Your task to perform on an android device: turn on improve location accuracy Image 0: 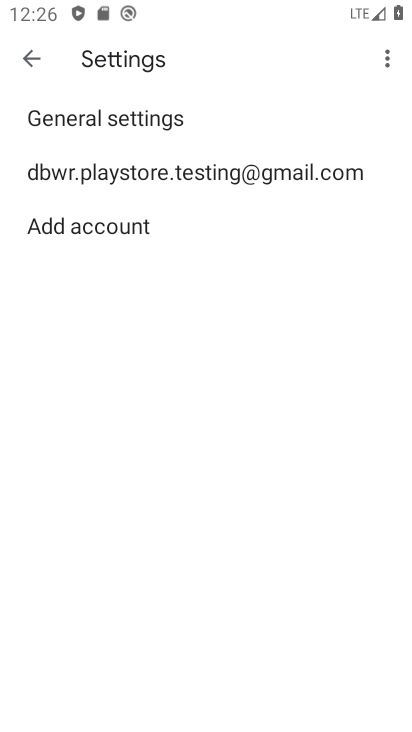
Step 0: press home button
Your task to perform on an android device: turn on improve location accuracy Image 1: 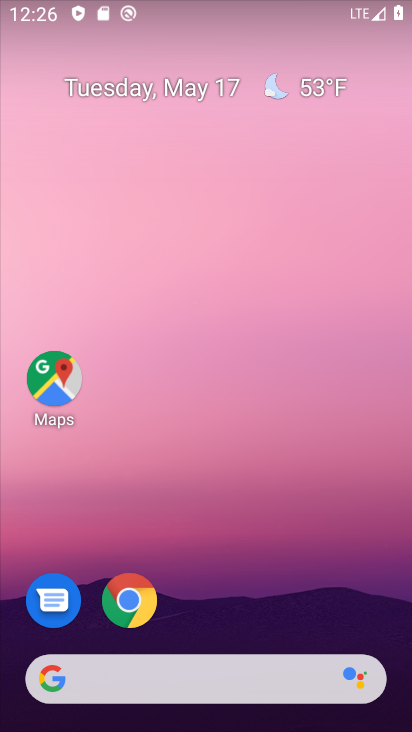
Step 1: click (180, 142)
Your task to perform on an android device: turn on improve location accuracy Image 2: 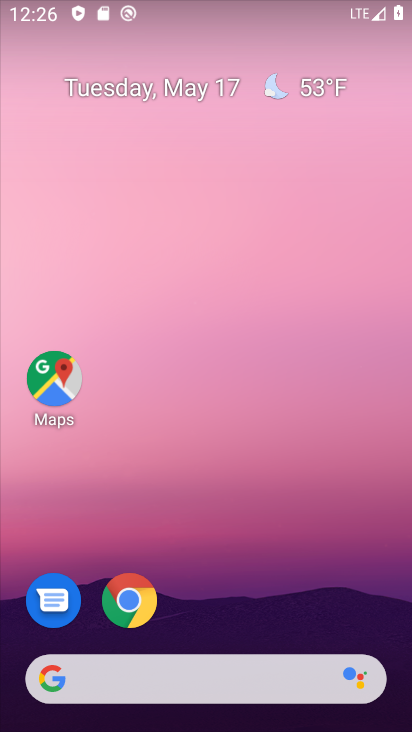
Step 2: drag from (203, 633) to (170, 112)
Your task to perform on an android device: turn on improve location accuracy Image 3: 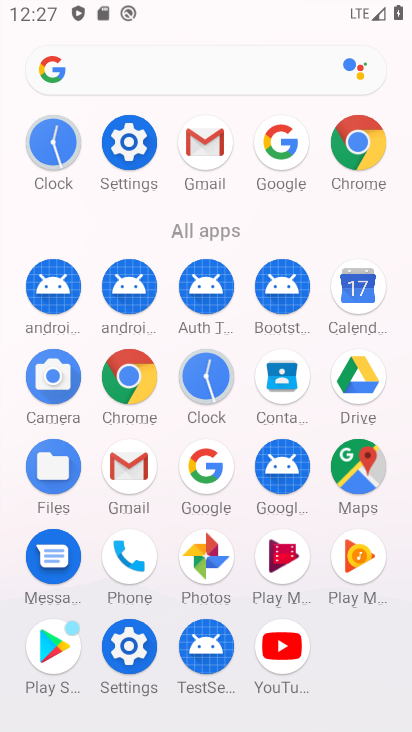
Step 3: click (123, 139)
Your task to perform on an android device: turn on improve location accuracy Image 4: 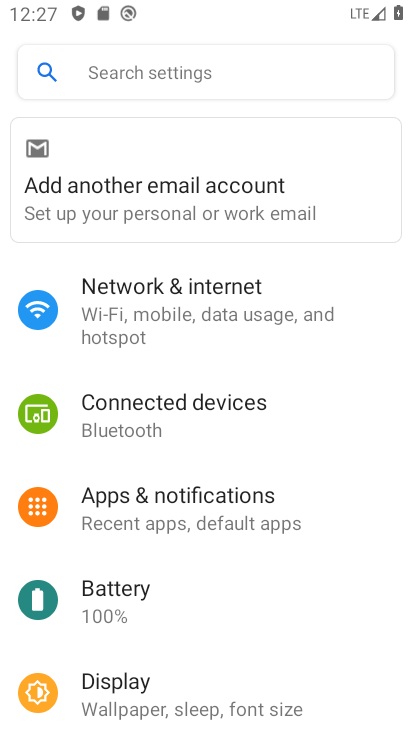
Step 4: click (172, 473)
Your task to perform on an android device: turn on improve location accuracy Image 5: 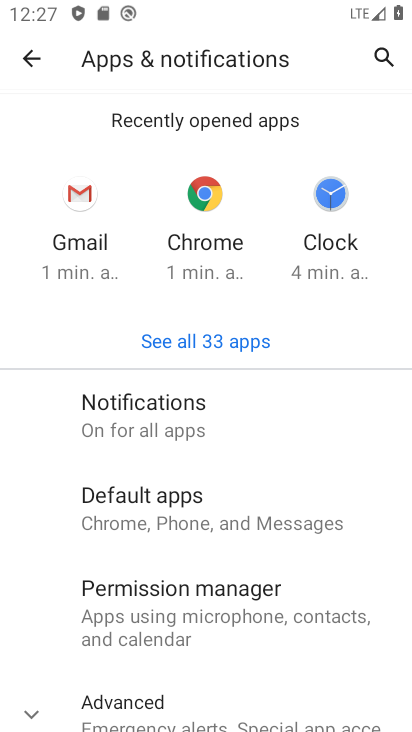
Step 5: press back button
Your task to perform on an android device: turn on improve location accuracy Image 6: 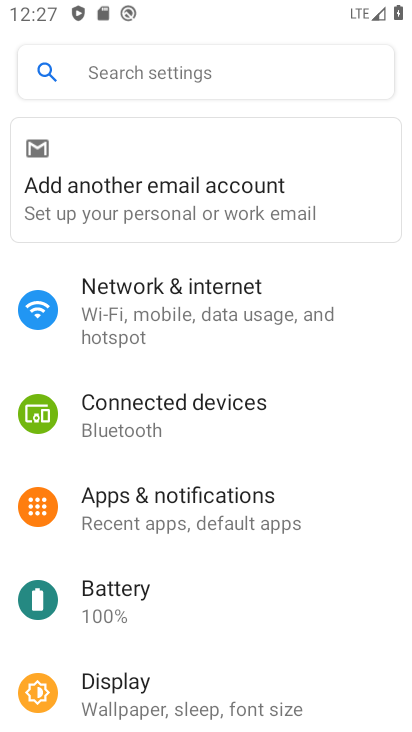
Step 6: drag from (247, 631) to (192, 185)
Your task to perform on an android device: turn on improve location accuracy Image 7: 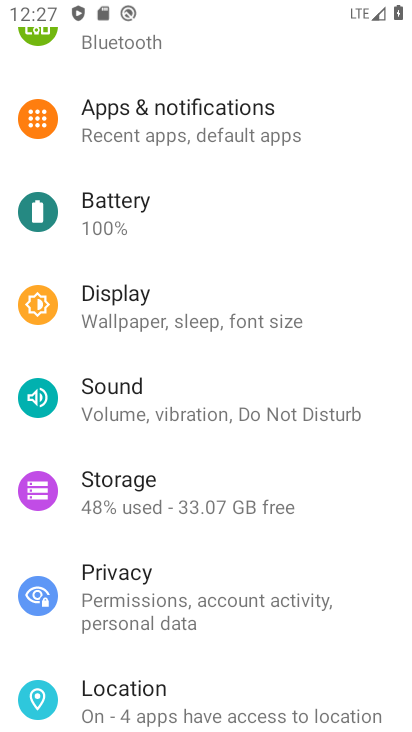
Step 7: click (138, 705)
Your task to perform on an android device: turn on improve location accuracy Image 8: 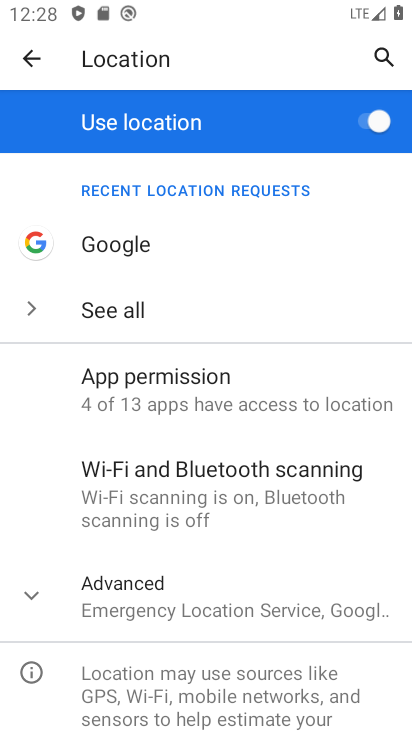
Step 8: click (135, 588)
Your task to perform on an android device: turn on improve location accuracy Image 9: 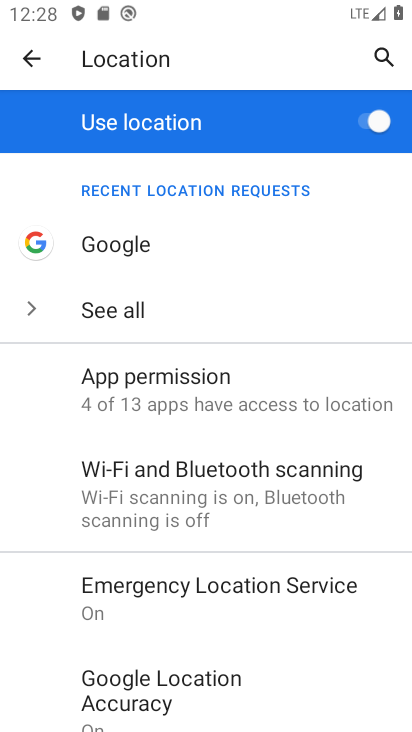
Step 9: drag from (147, 625) to (201, 415)
Your task to perform on an android device: turn on improve location accuracy Image 10: 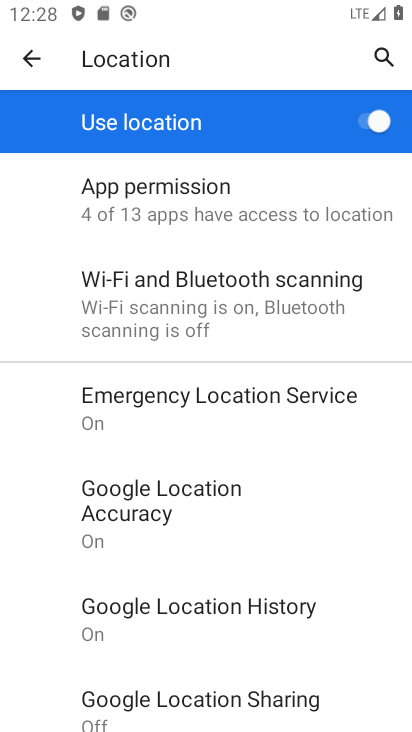
Step 10: click (153, 509)
Your task to perform on an android device: turn on improve location accuracy Image 11: 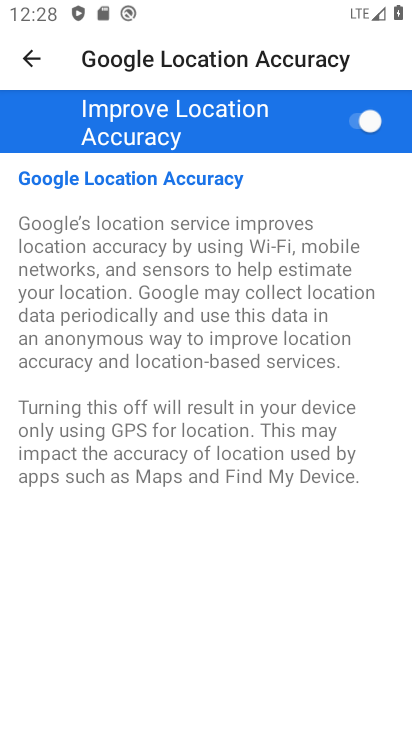
Step 11: task complete